Your task to perform on an android device: Open location settings Image 0: 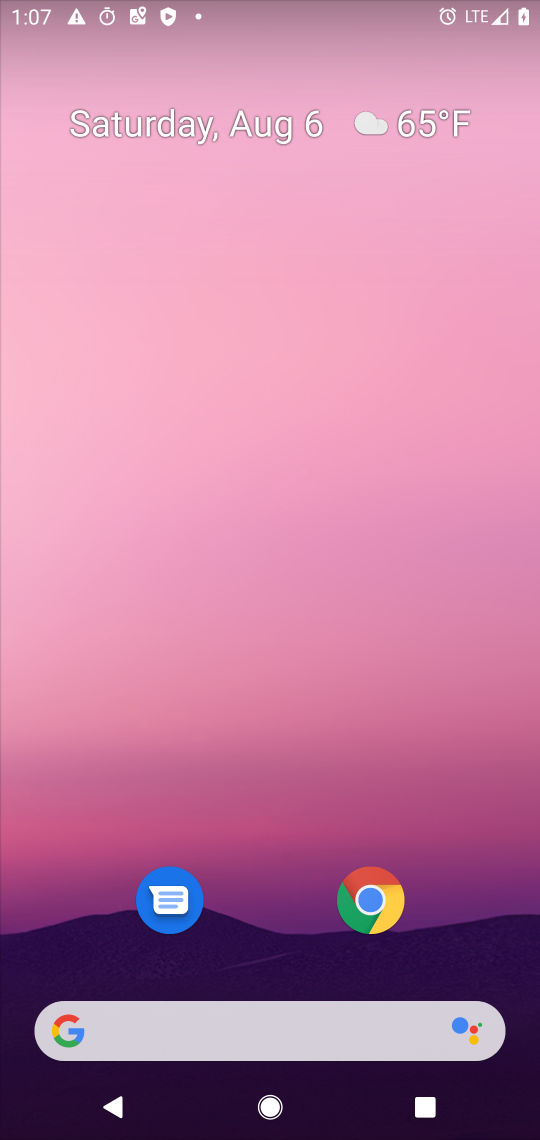
Step 0: drag from (300, 780) to (306, 122)
Your task to perform on an android device: Open location settings Image 1: 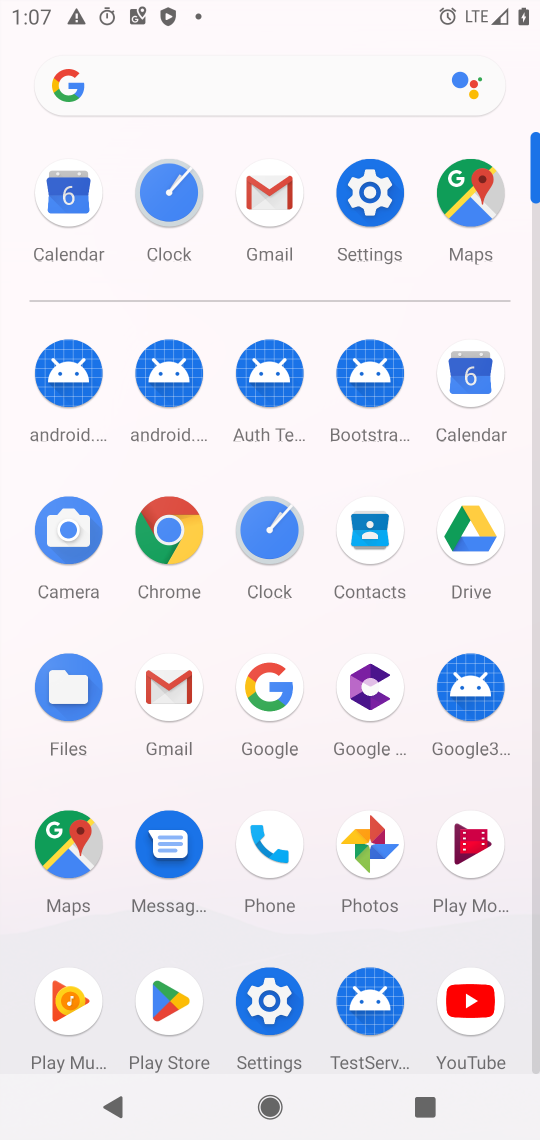
Step 1: click (366, 193)
Your task to perform on an android device: Open location settings Image 2: 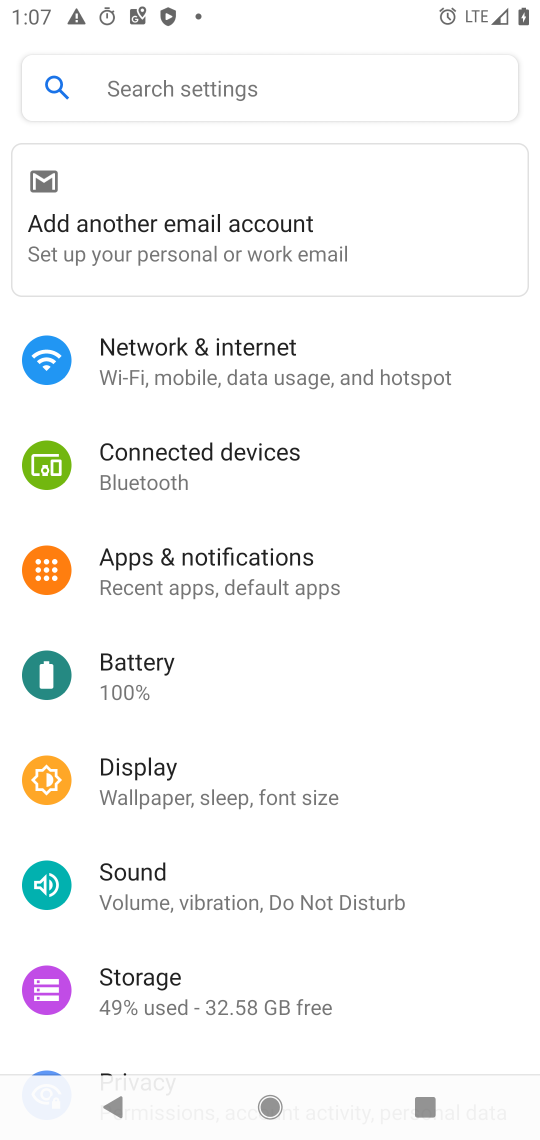
Step 2: drag from (160, 930) to (179, 638)
Your task to perform on an android device: Open location settings Image 3: 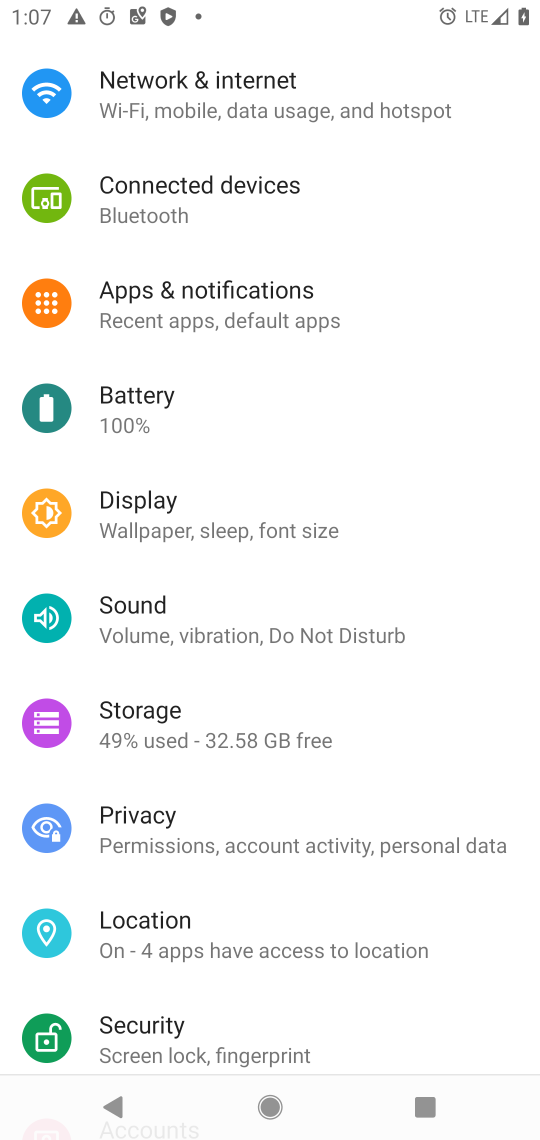
Step 3: click (147, 937)
Your task to perform on an android device: Open location settings Image 4: 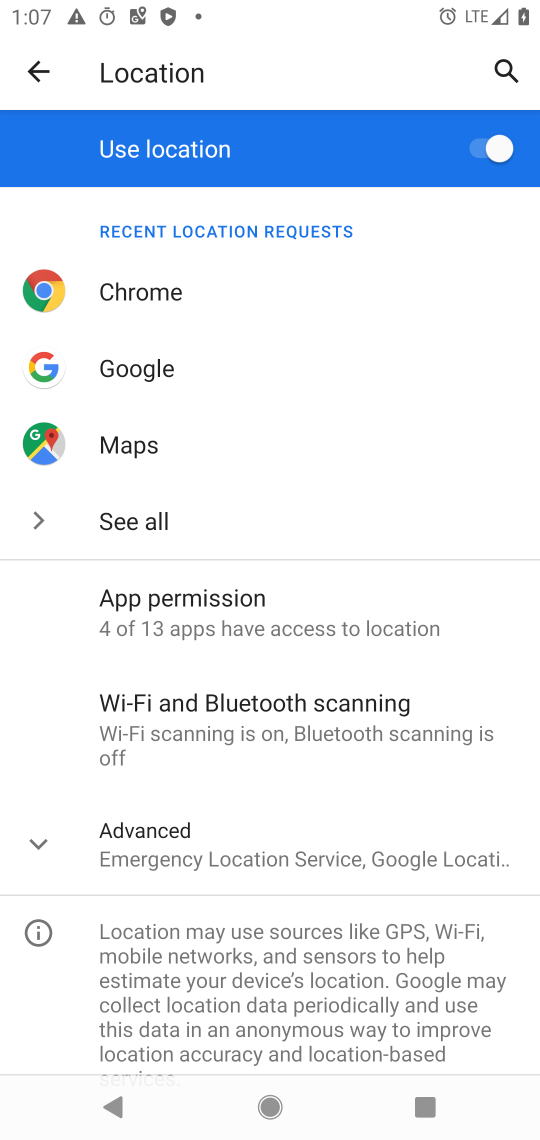
Step 4: task complete